Your task to perform on an android device: Search for Mexican restaurants on Maps Image 0: 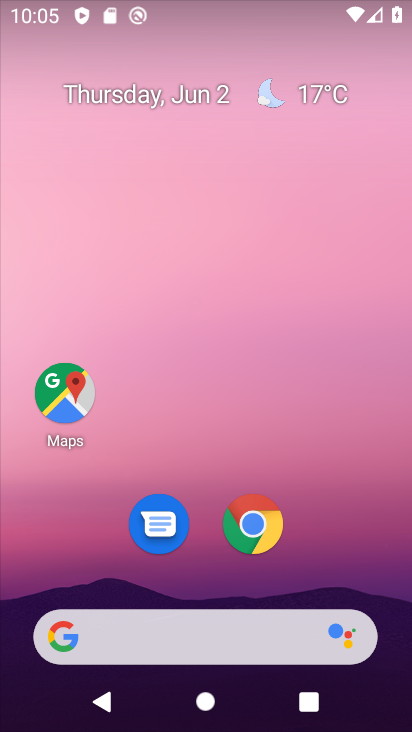
Step 0: click (62, 394)
Your task to perform on an android device: Search for Mexican restaurants on Maps Image 1: 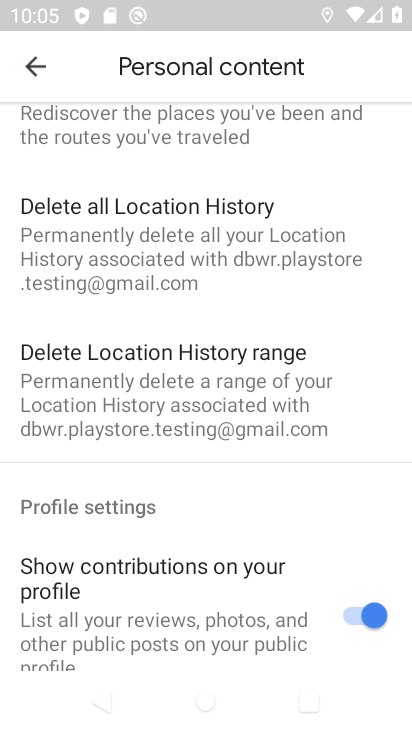
Step 1: click (33, 62)
Your task to perform on an android device: Search for Mexican restaurants on Maps Image 2: 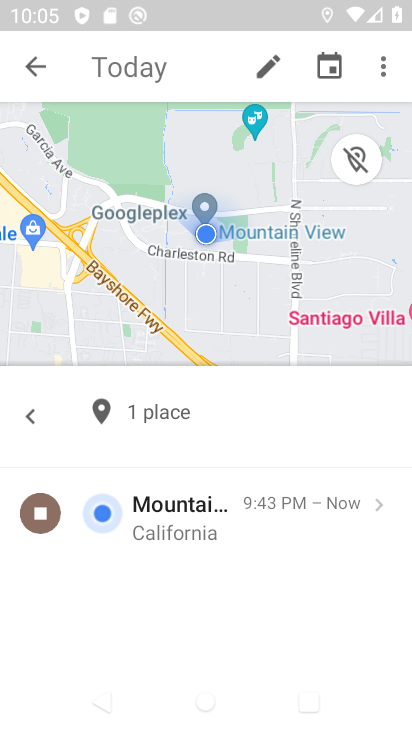
Step 2: click (41, 68)
Your task to perform on an android device: Search for Mexican restaurants on Maps Image 3: 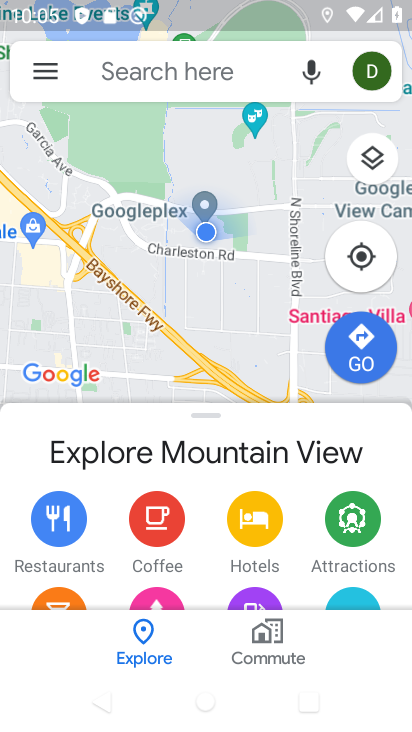
Step 3: click (158, 72)
Your task to perform on an android device: Search for Mexican restaurants on Maps Image 4: 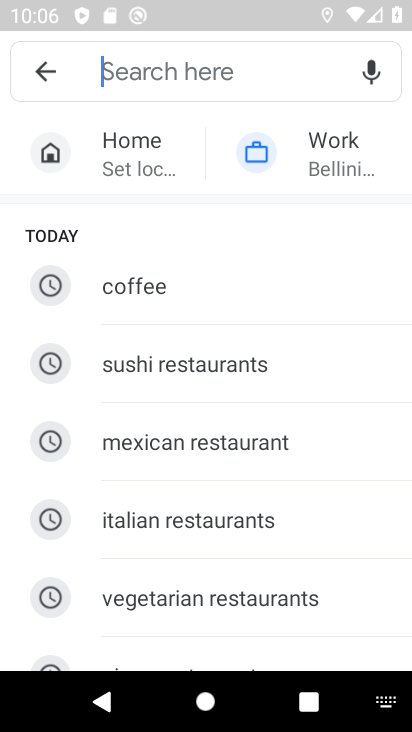
Step 4: click (227, 436)
Your task to perform on an android device: Search for Mexican restaurants on Maps Image 5: 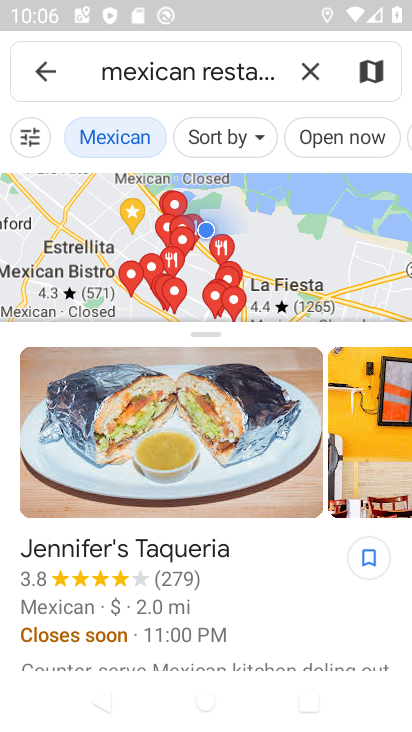
Step 5: task complete